Your task to perform on an android device: find snoozed emails in the gmail app Image 0: 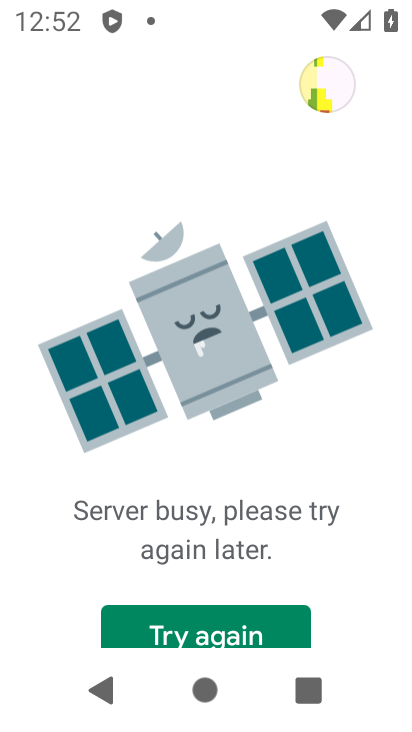
Step 0: click (356, 524)
Your task to perform on an android device: find snoozed emails in the gmail app Image 1: 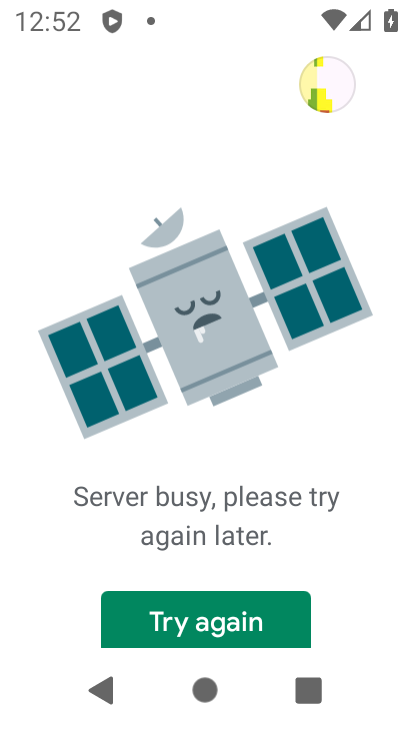
Step 1: press home button
Your task to perform on an android device: find snoozed emails in the gmail app Image 2: 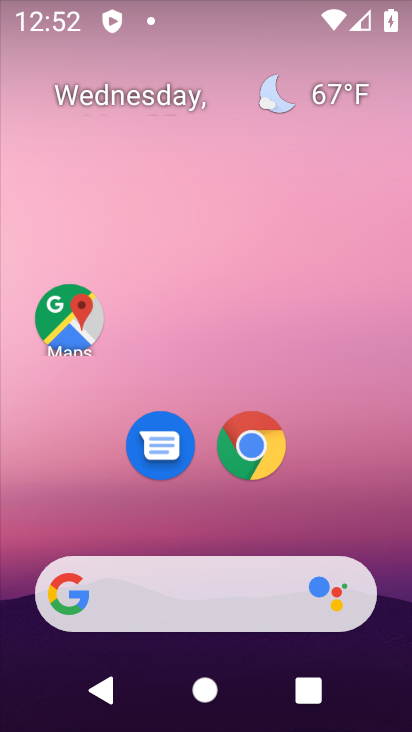
Step 2: drag from (388, 546) to (285, 103)
Your task to perform on an android device: find snoozed emails in the gmail app Image 3: 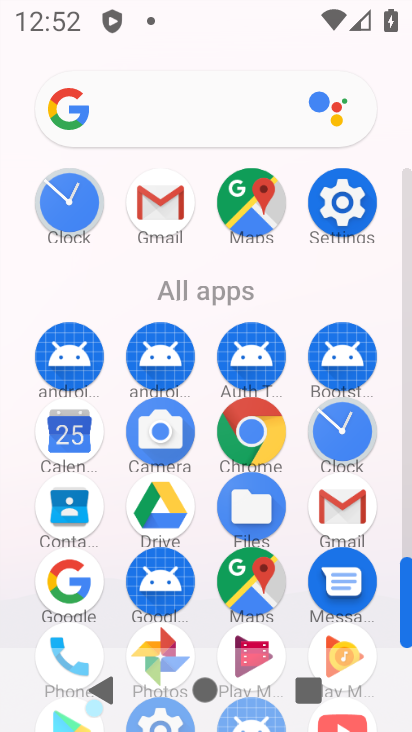
Step 3: click (285, 103)
Your task to perform on an android device: find snoozed emails in the gmail app Image 4: 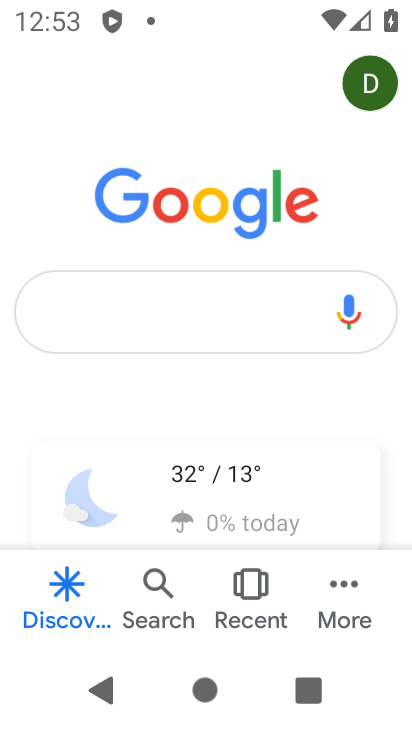
Step 4: press home button
Your task to perform on an android device: find snoozed emails in the gmail app Image 5: 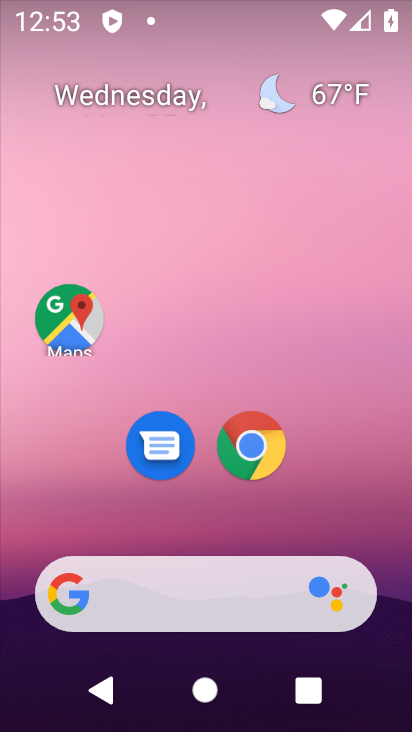
Step 5: drag from (390, 539) to (268, 118)
Your task to perform on an android device: find snoozed emails in the gmail app Image 6: 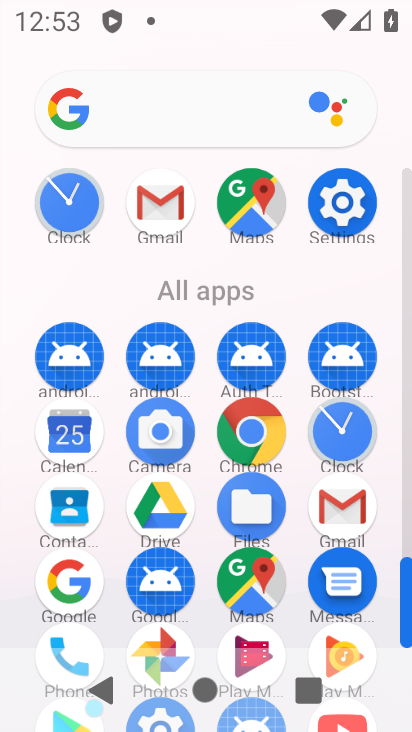
Step 6: click (167, 214)
Your task to perform on an android device: find snoozed emails in the gmail app Image 7: 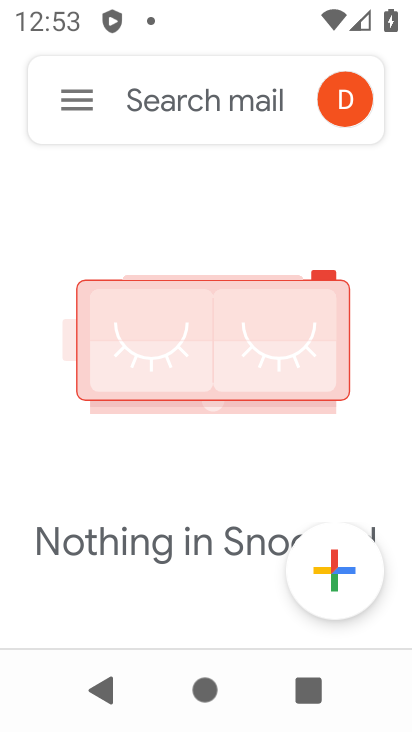
Step 7: click (86, 122)
Your task to perform on an android device: find snoozed emails in the gmail app Image 8: 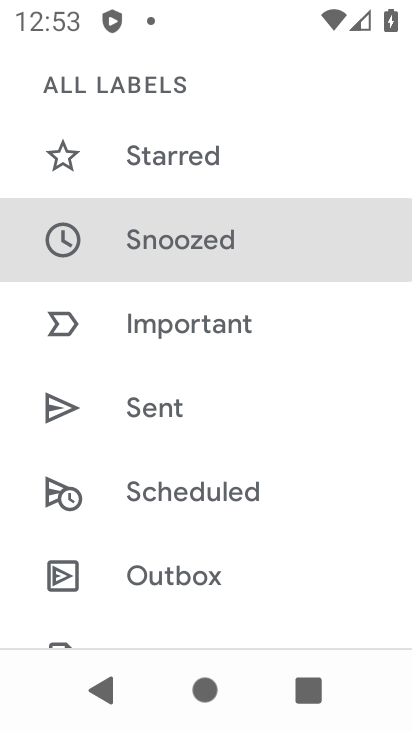
Step 8: click (220, 249)
Your task to perform on an android device: find snoozed emails in the gmail app Image 9: 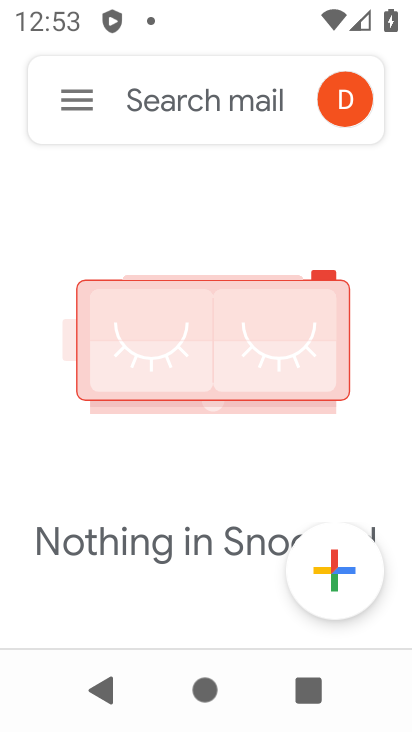
Step 9: task complete